Your task to perform on an android device: turn pop-ups off in chrome Image 0: 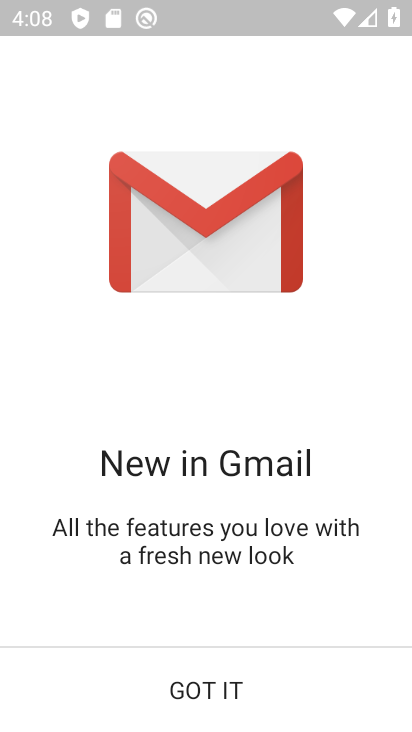
Step 0: click (203, 687)
Your task to perform on an android device: turn pop-ups off in chrome Image 1: 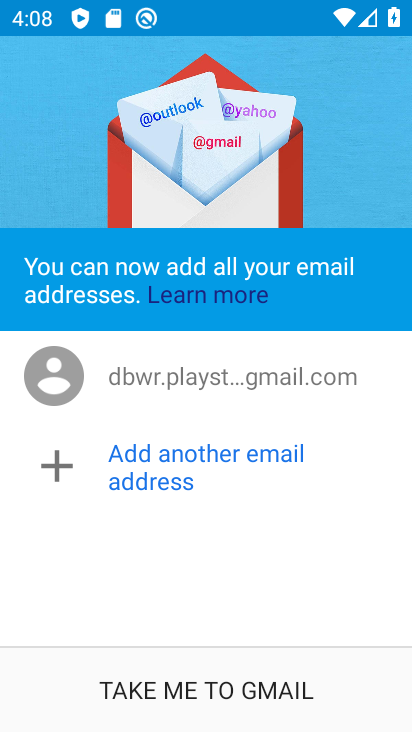
Step 1: press home button
Your task to perform on an android device: turn pop-ups off in chrome Image 2: 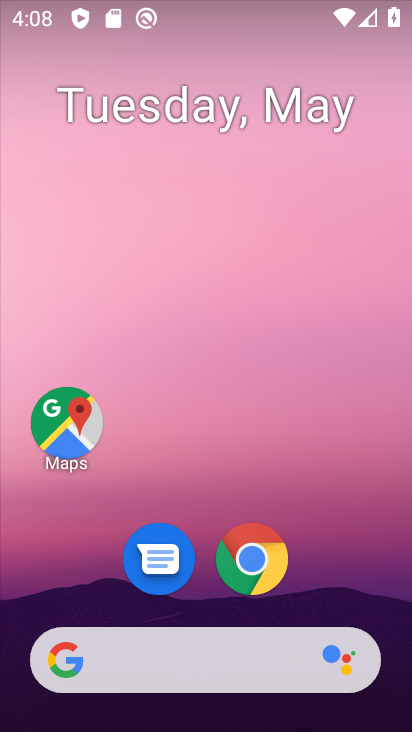
Step 2: click (264, 568)
Your task to perform on an android device: turn pop-ups off in chrome Image 3: 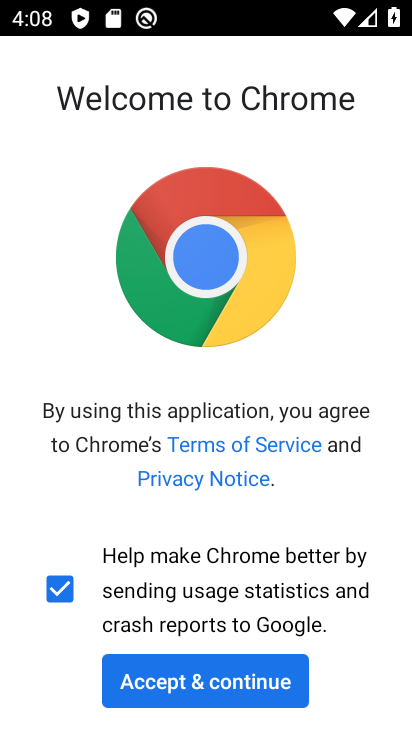
Step 3: click (233, 672)
Your task to perform on an android device: turn pop-ups off in chrome Image 4: 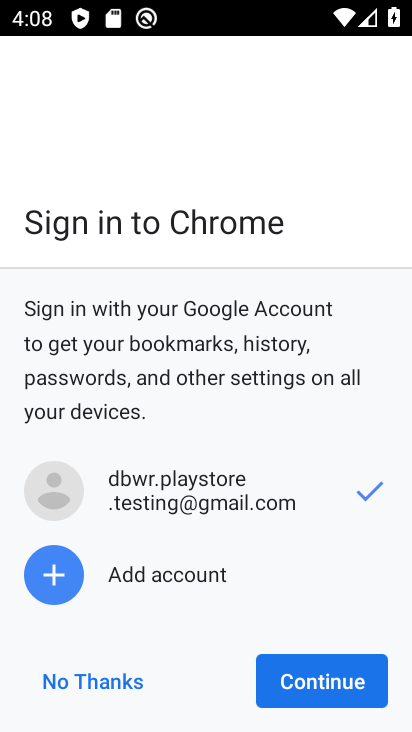
Step 4: click (330, 694)
Your task to perform on an android device: turn pop-ups off in chrome Image 5: 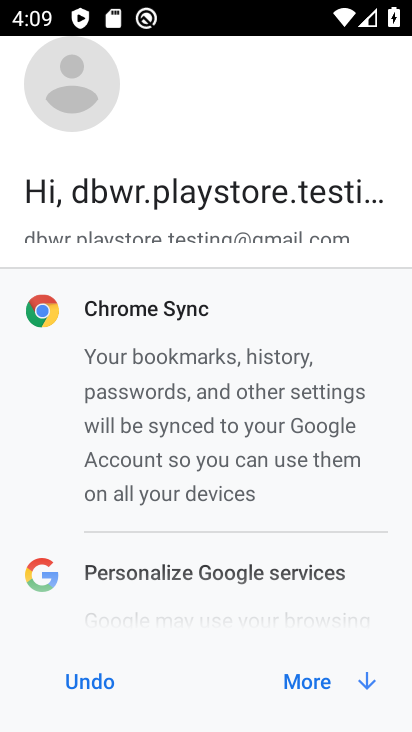
Step 5: click (330, 694)
Your task to perform on an android device: turn pop-ups off in chrome Image 6: 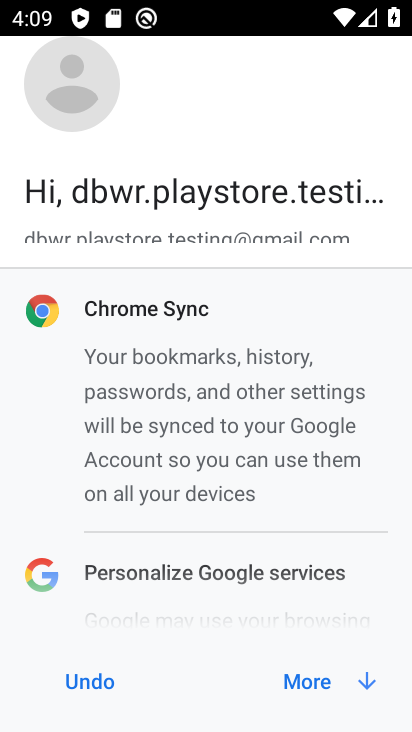
Step 6: click (330, 694)
Your task to perform on an android device: turn pop-ups off in chrome Image 7: 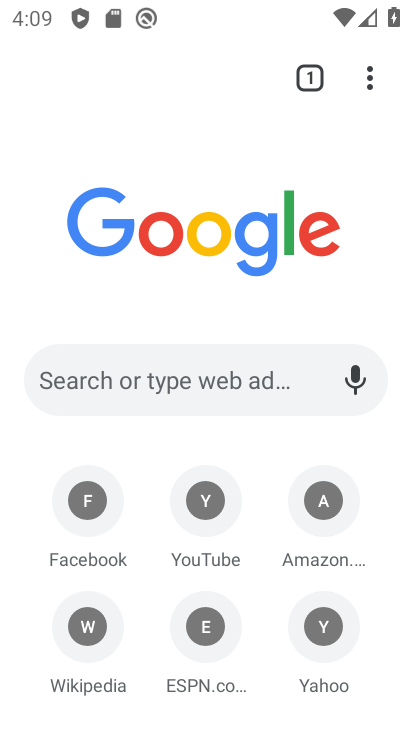
Step 7: click (375, 77)
Your task to perform on an android device: turn pop-ups off in chrome Image 8: 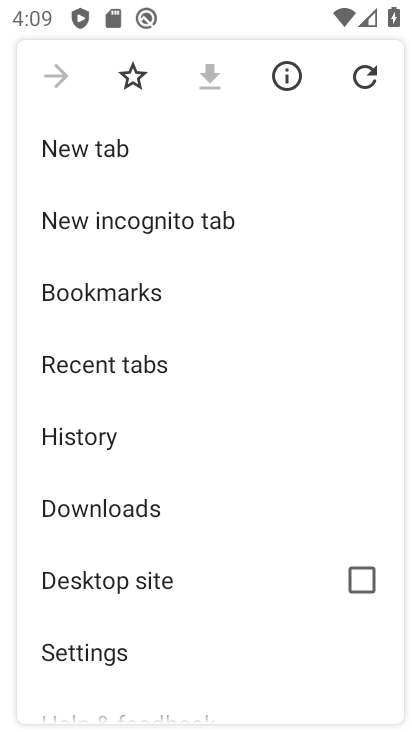
Step 8: click (127, 656)
Your task to perform on an android device: turn pop-ups off in chrome Image 9: 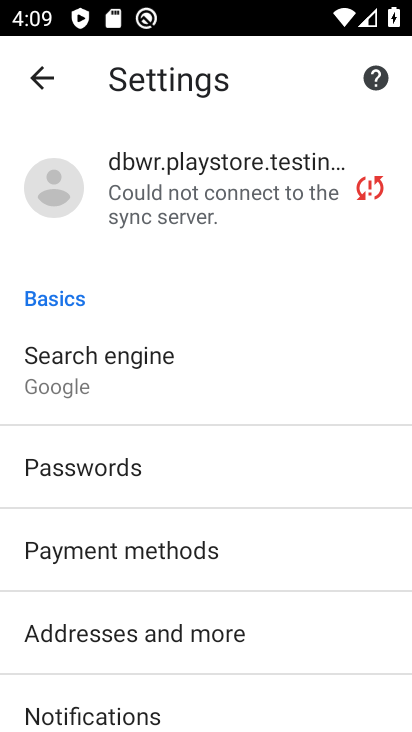
Step 9: drag from (175, 660) to (181, 344)
Your task to perform on an android device: turn pop-ups off in chrome Image 10: 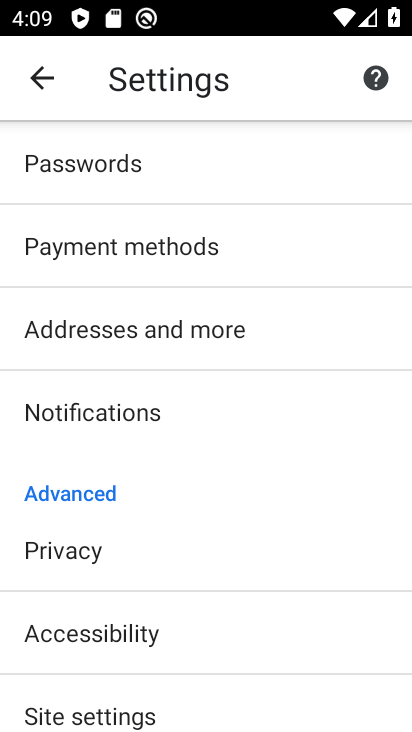
Step 10: drag from (183, 674) to (210, 339)
Your task to perform on an android device: turn pop-ups off in chrome Image 11: 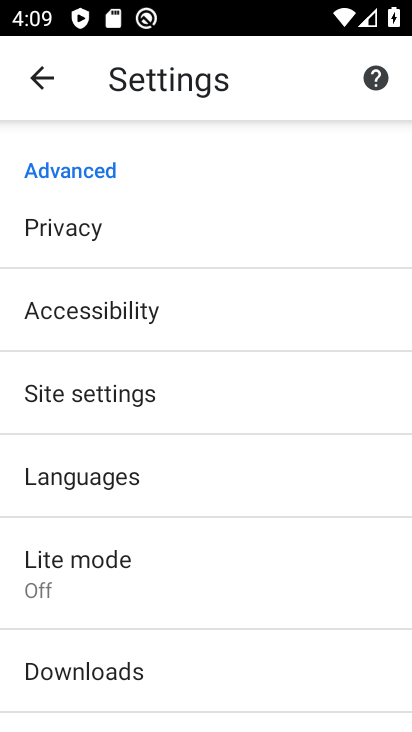
Step 11: click (152, 407)
Your task to perform on an android device: turn pop-ups off in chrome Image 12: 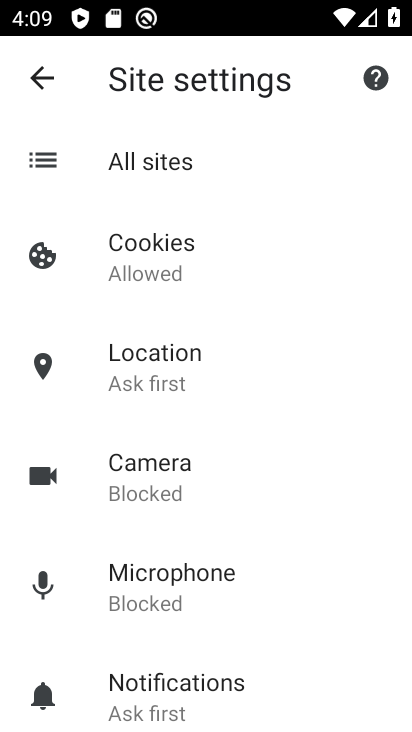
Step 12: drag from (273, 604) to (199, 164)
Your task to perform on an android device: turn pop-ups off in chrome Image 13: 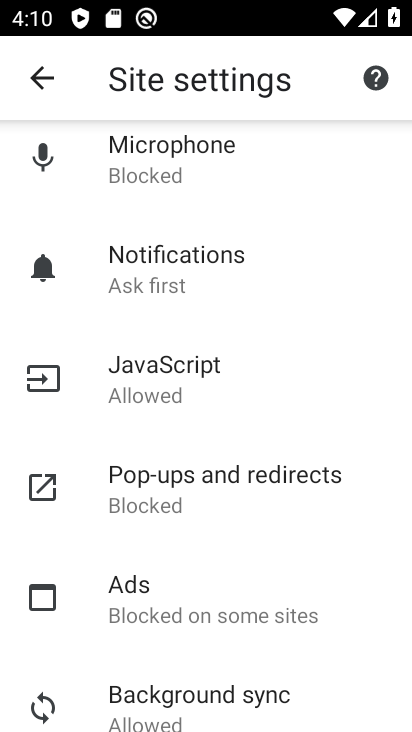
Step 13: click (183, 485)
Your task to perform on an android device: turn pop-ups off in chrome Image 14: 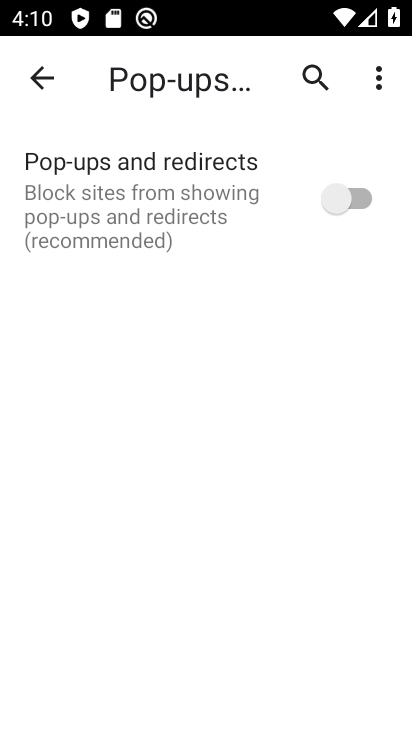
Step 14: task complete